Your task to perform on an android device: Go to notification settings Image 0: 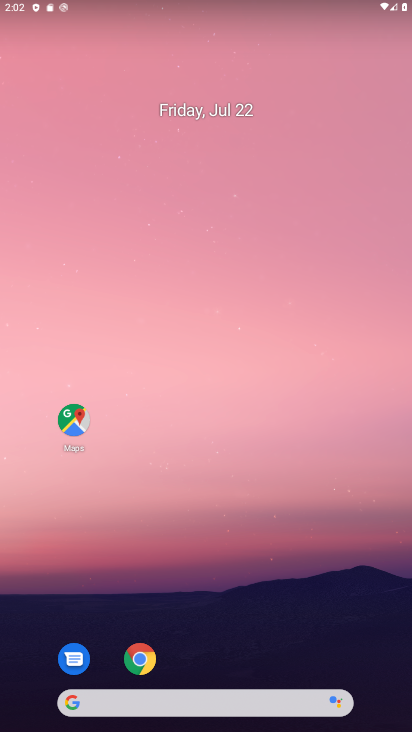
Step 0: drag from (278, 638) to (215, 7)
Your task to perform on an android device: Go to notification settings Image 1: 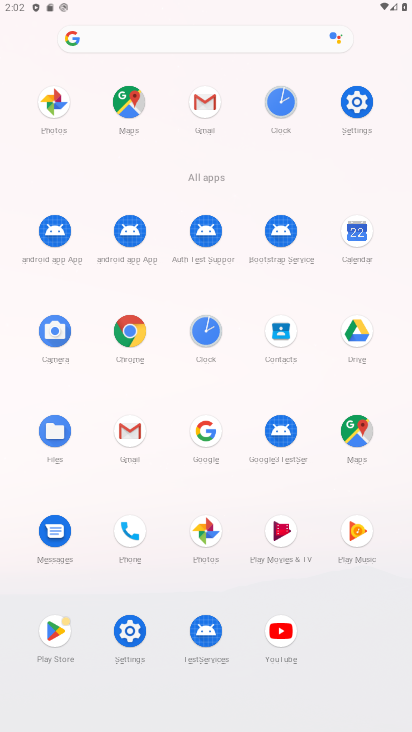
Step 1: click (349, 96)
Your task to perform on an android device: Go to notification settings Image 2: 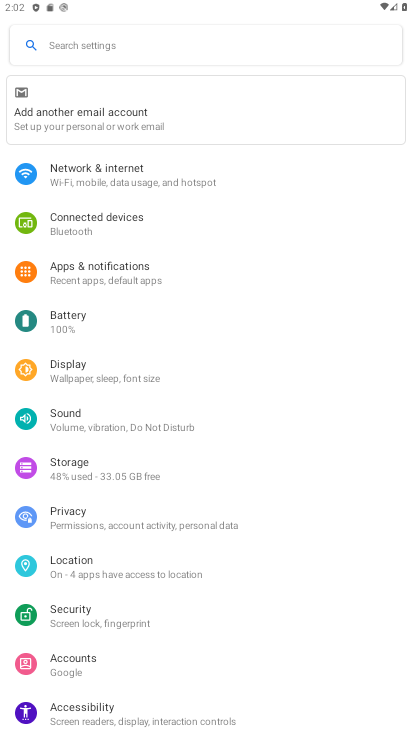
Step 2: click (35, 279)
Your task to perform on an android device: Go to notification settings Image 3: 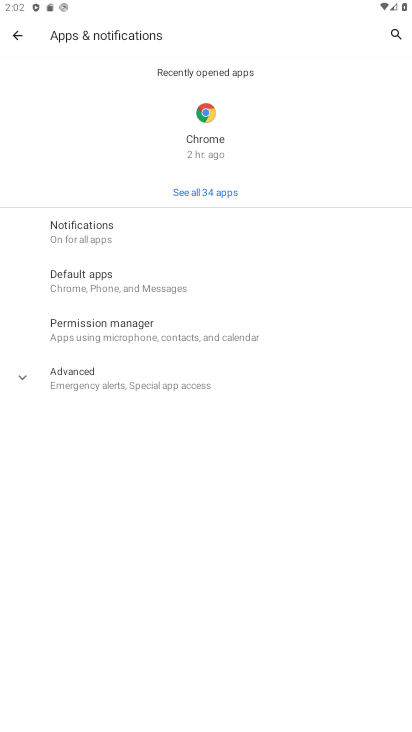
Step 3: click (134, 221)
Your task to perform on an android device: Go to notification settings Image 4: 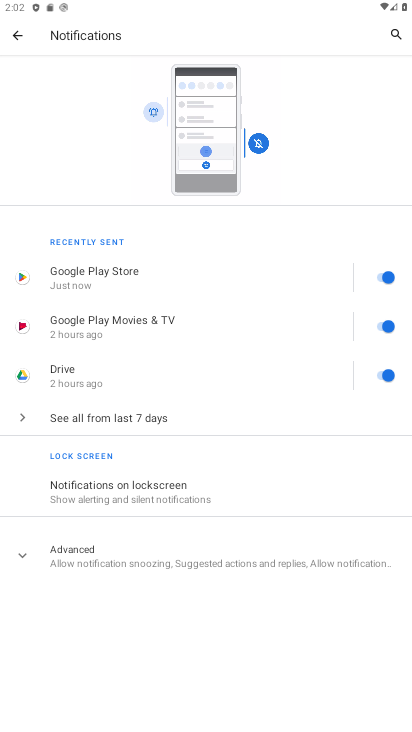
Step 4: click (134, 221)
Your task to perform on an android device: Go to notification settings Image 5: 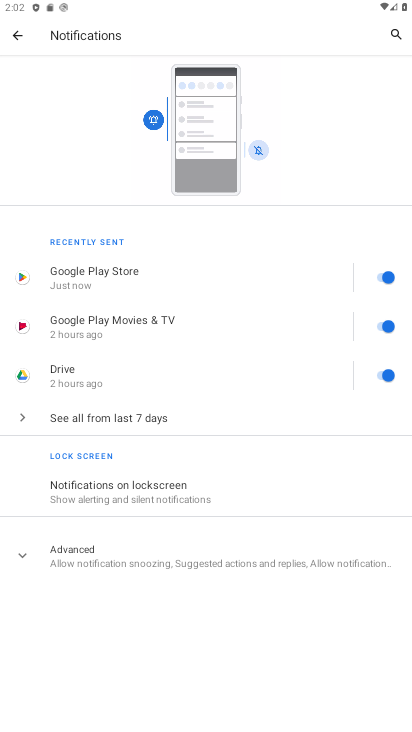
Step 5: task complete